Your task to perform on an android device: Open display settings Image 0: 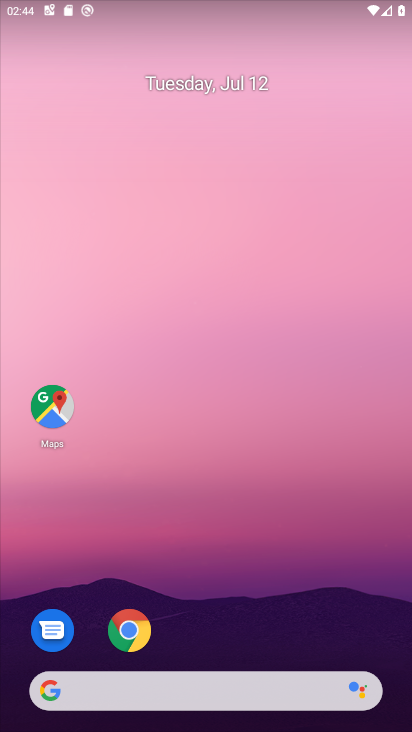
Step 0: drag from (375, 641) to (350, 217)
Your task to perform on an android device: Open display settings Image 1: 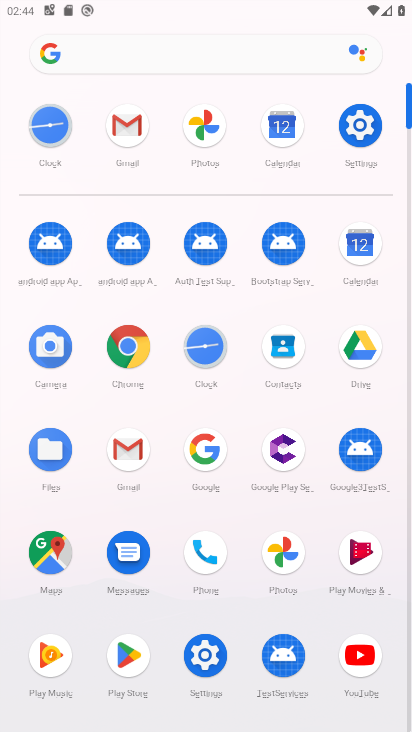
Step 1: click (205, 655)
Your task to perform on an android device: Open display settings Image 2: 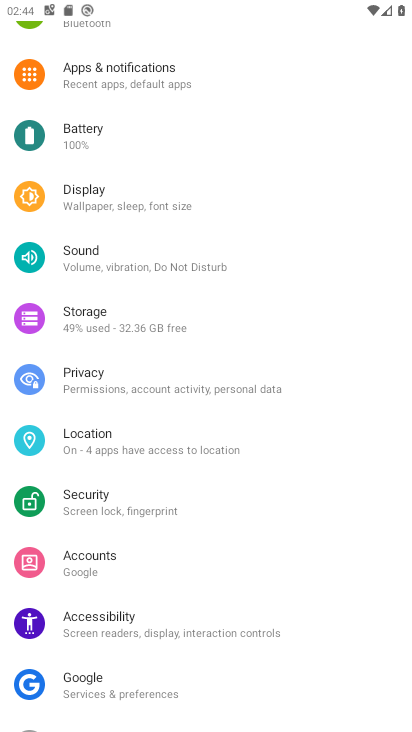
Step 2: click (86, 189)
Your task to perform on an android device: Open display settings Image 3: 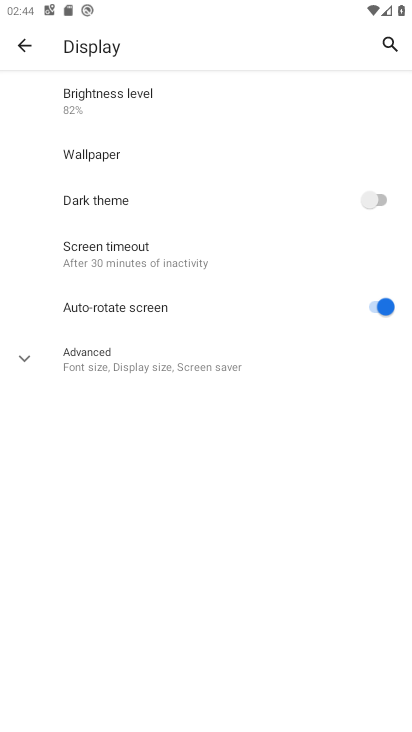
Step 3: click (16, 360)
Your task to perform on an android device: Open display settings Image 4: 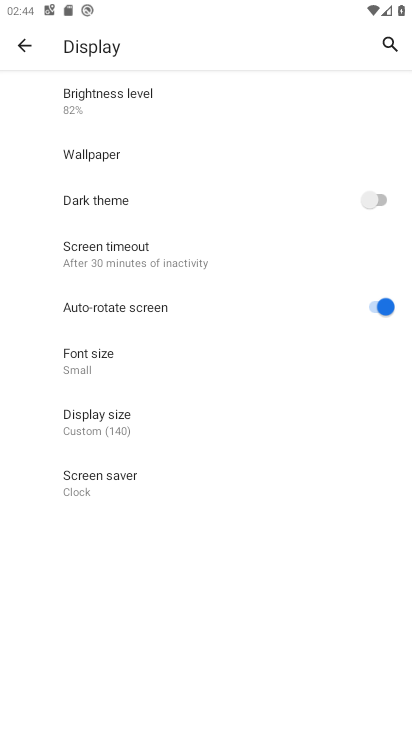
Step 4: task complete